Your task to perform on an android device: change keyboard looks Image 0: 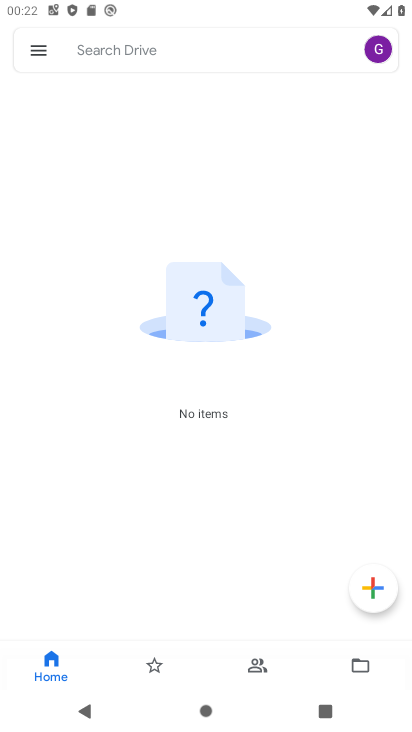
Step 0: press home button
Your task to perform on an android device: change keyboard looks Image 1: 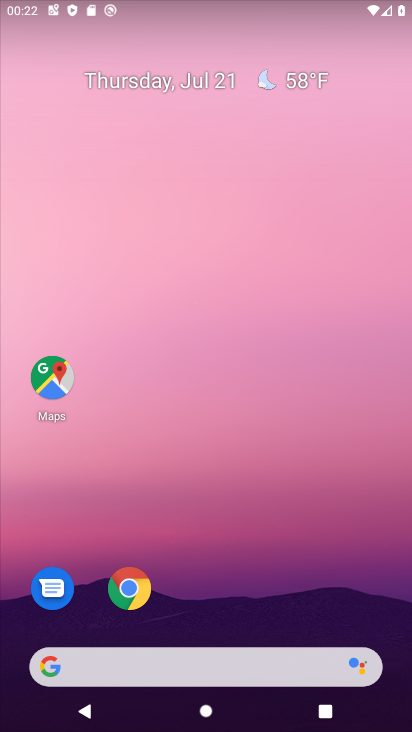
Step 1: drag from (236, 632) to (274, 194)
Your task to perform on an android device: change keyboard looks Image 2: 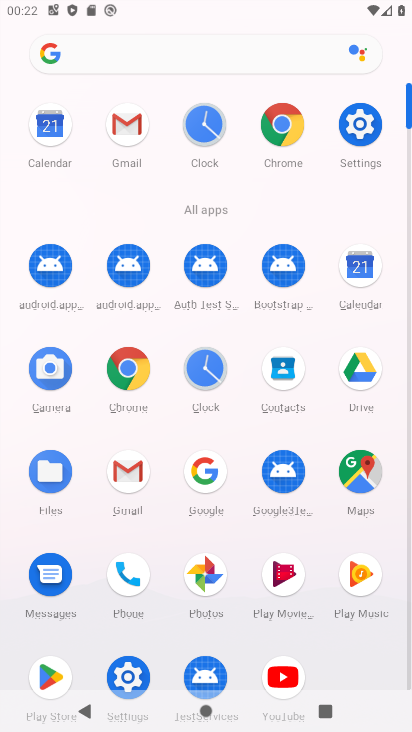
Step 2: click (129, 668)
Your task to perform on an android device: change keyboard looks Image 3: 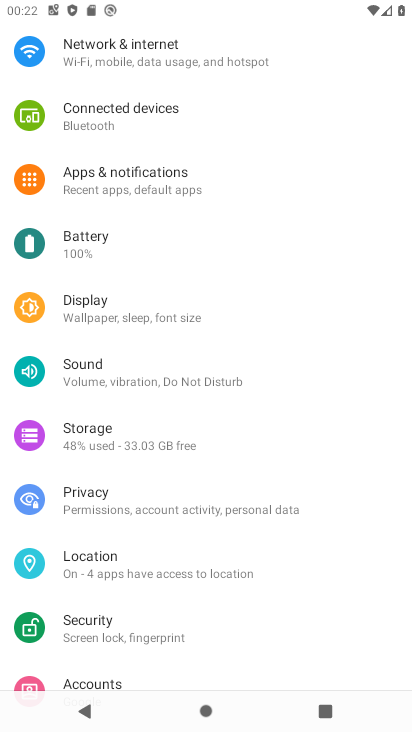
Step 3: drag from (125, 653) to (167, 307)
Your task to perform on an android device: change keyboard looks Image 4: 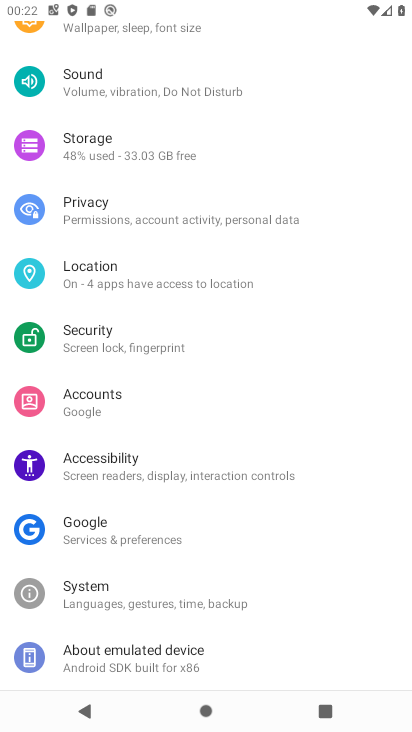
Step 4: click (120, 602)
Your task to perform on an android device: change keyboard looks Image 5: 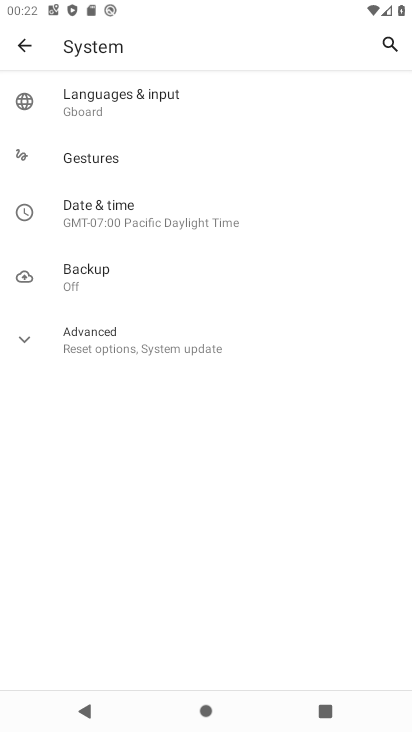
Step 5: click (103, 218)
Your task to perform on an android device: change keyboard looks Image 6: 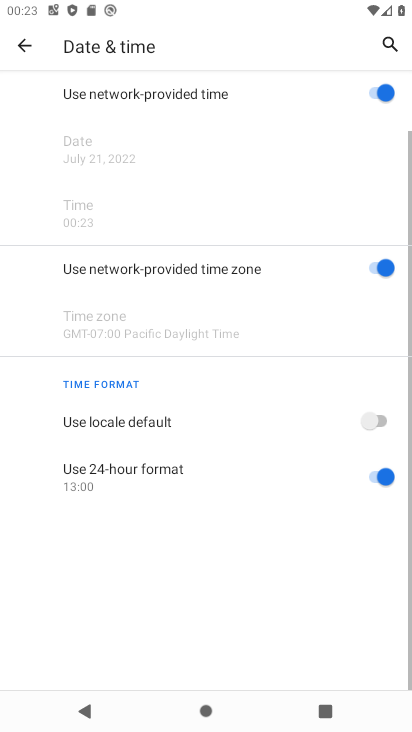
Step 6: click (24, 52)
Your task to perform on an android device: change keyboard looks Image 7: 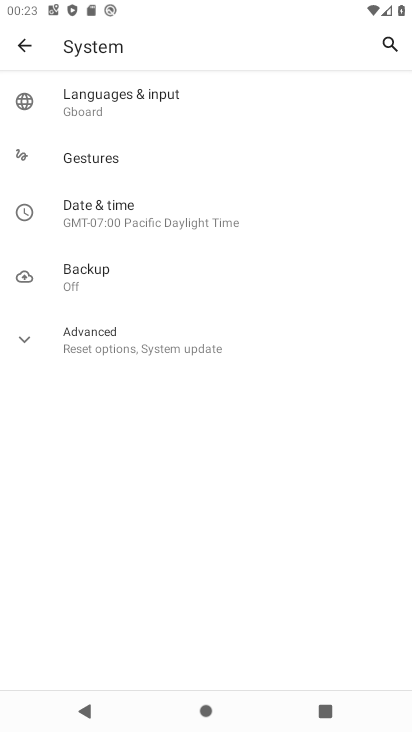
Step 7: click (110, 101)
Your task to perform on an android device: change keyboard looks Image 8: 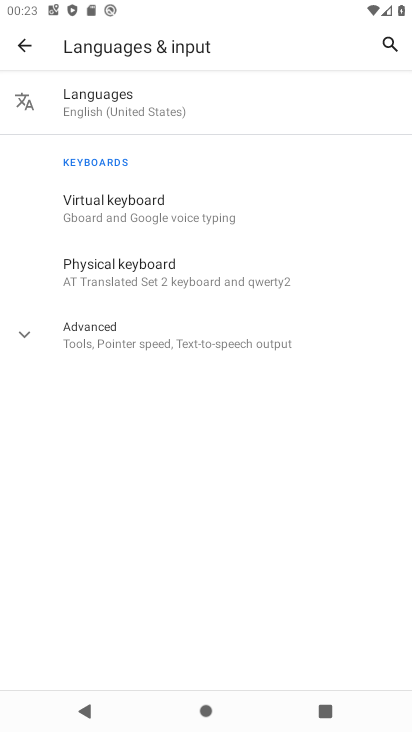
Step 8: click (119, 210)
Your task to perform on an android device: change keyboard looks Image 9: 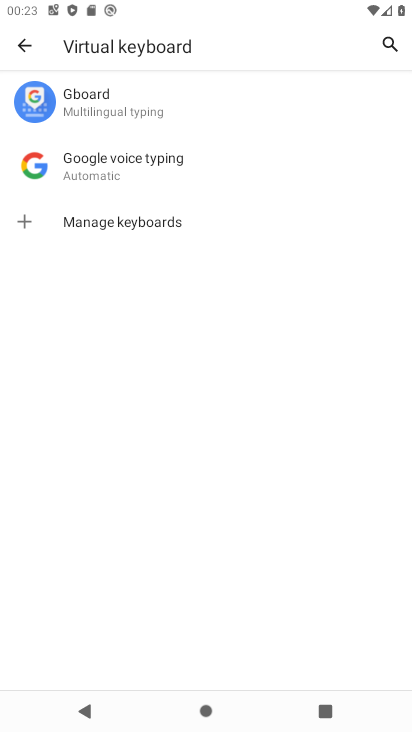
Step 9: click (102, 103)
Your task to perform on an android device: change keyboard looks Image 10: 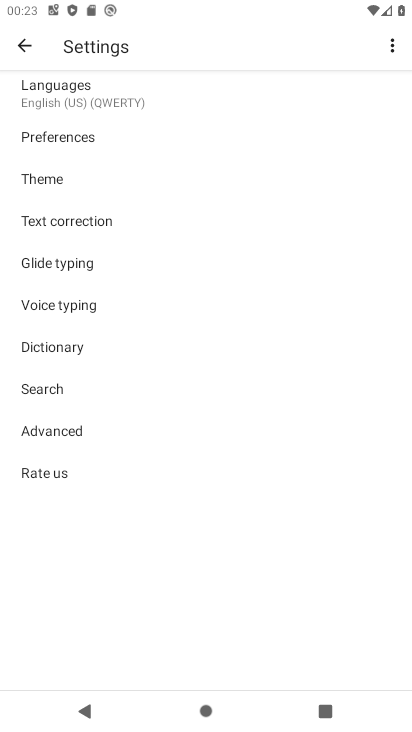
Step 10: click (47, 181)
Your task to perform on an android device: change keyboard looks Image 11: 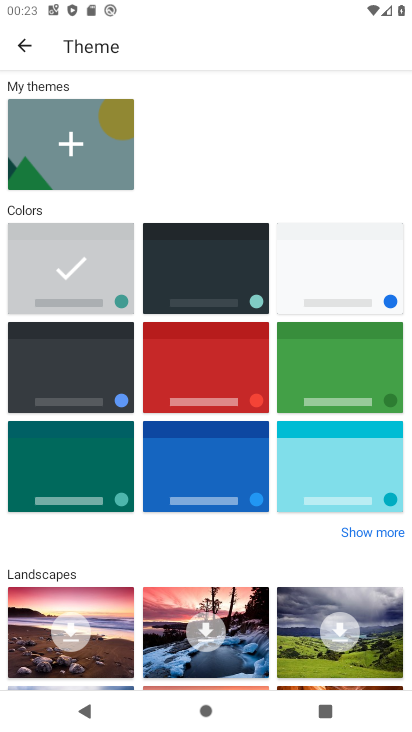
Step 11: click (212, 282)
Your task to perform on an android device: change keyboard looks Image 12: 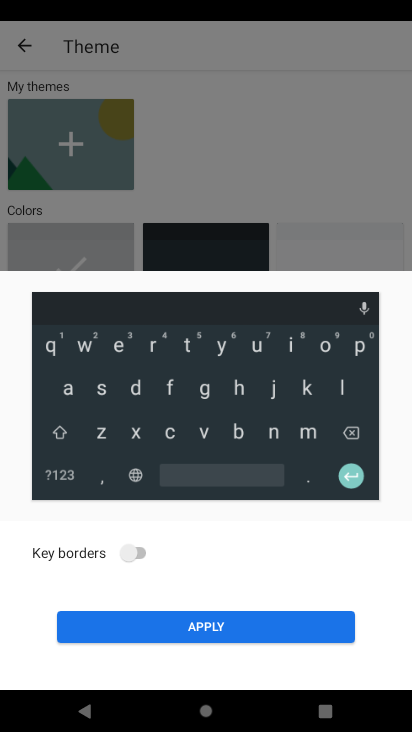
Step 12: click (263, 630)
Your task to perform on an android device: change keyboard looks Image 13: 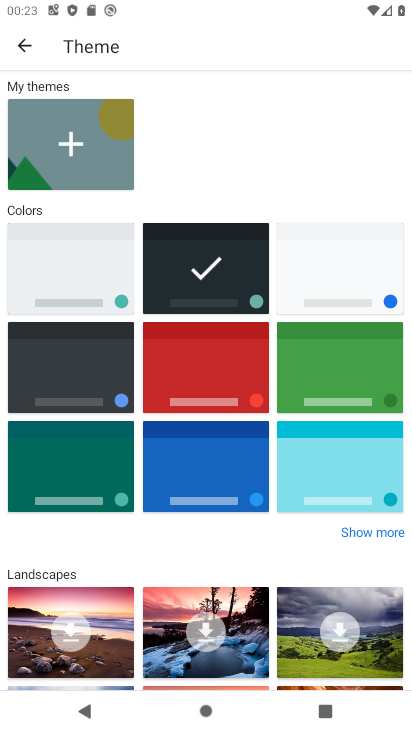
Step 13: task complete